Your task to perform on an android device: Open Chrome and go to settings Image 0: 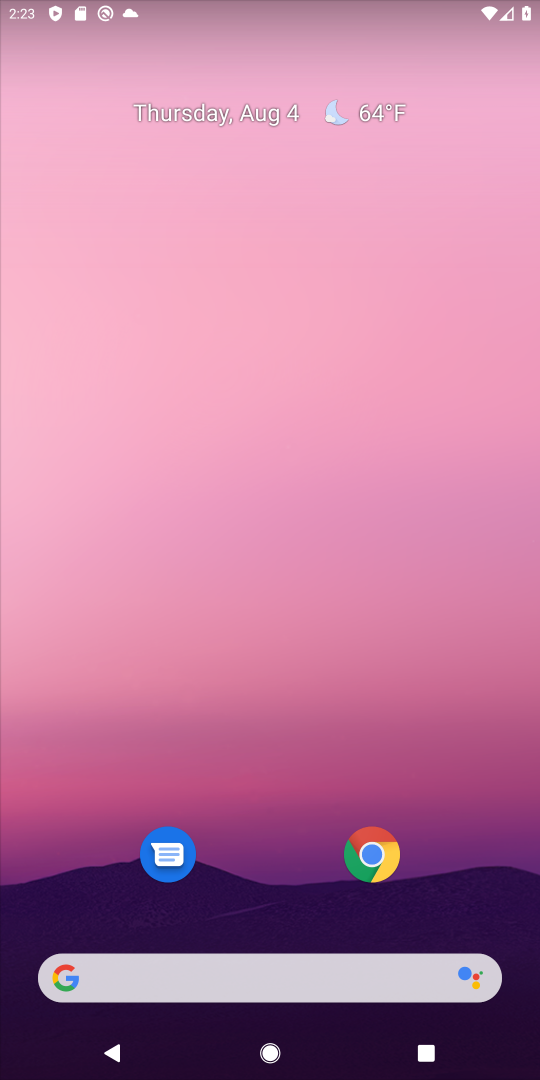
Step 0: drag from (384, 745) to (413, 453)
Your task to perform on an android device: Open Chrome and go to settings Image 1: 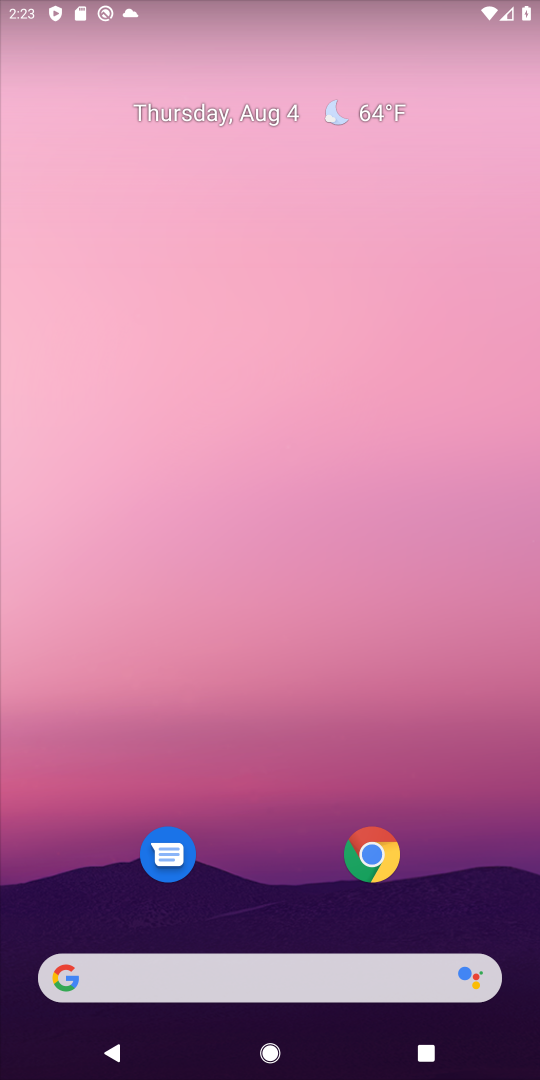
Step 1: click (368, 861)
Your task to perform on an android device: Open Chrome and go to settings Image 2: 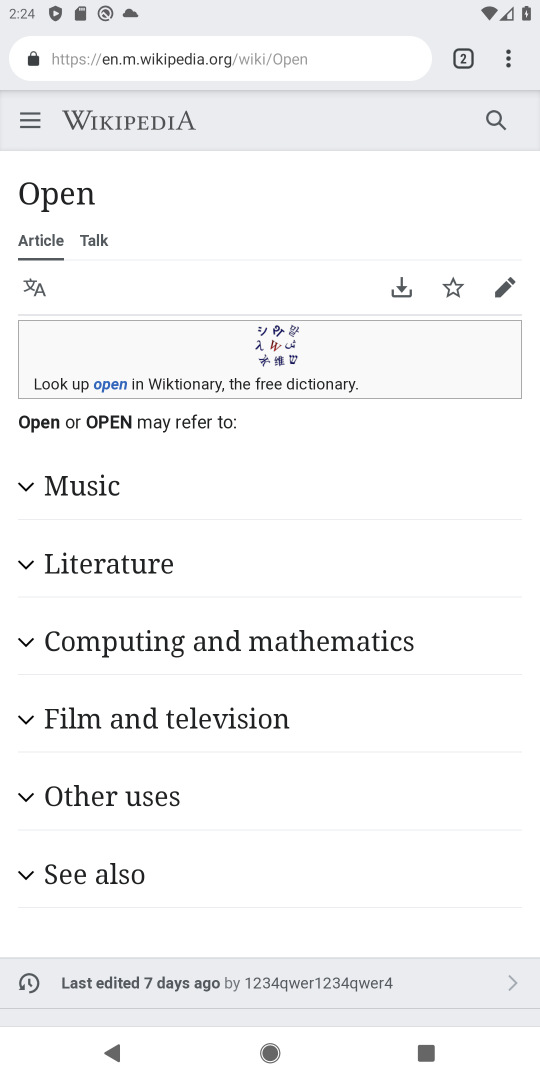
Step 2: click (508, 58)
Your task to perform on an android device: Open Chrome and go to settings Image 3: 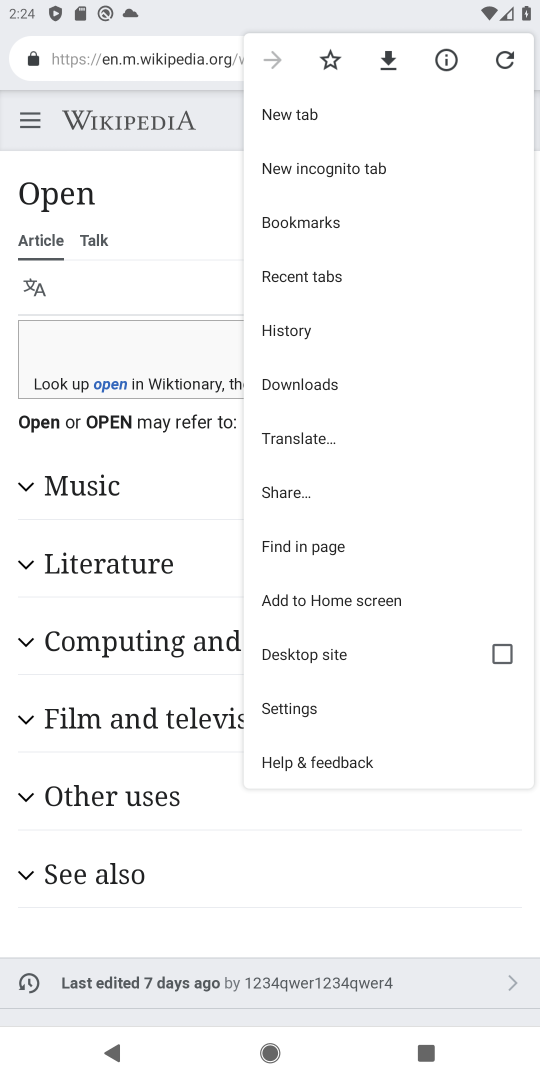
Step 3: click (301, 710)
Your task to perform on an android device: Open Chrome and go to settings Image 4: 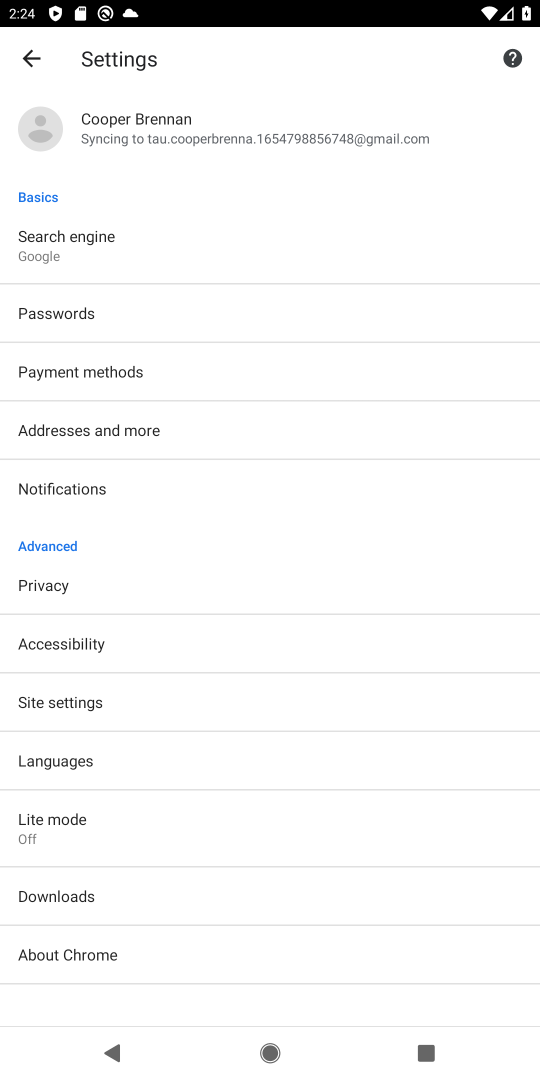
Step 4: task complete